Your task to perform on an android device: change the upload size in google photos Image 0: 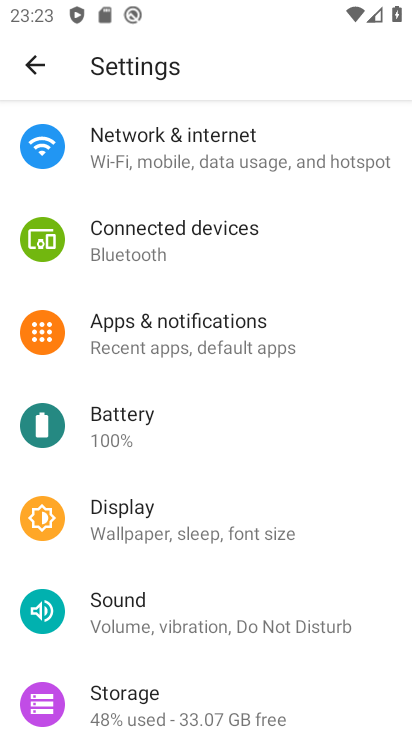
Step 0: press home button
Your task to perform on an android device: change the upload size in google photos Image 1: 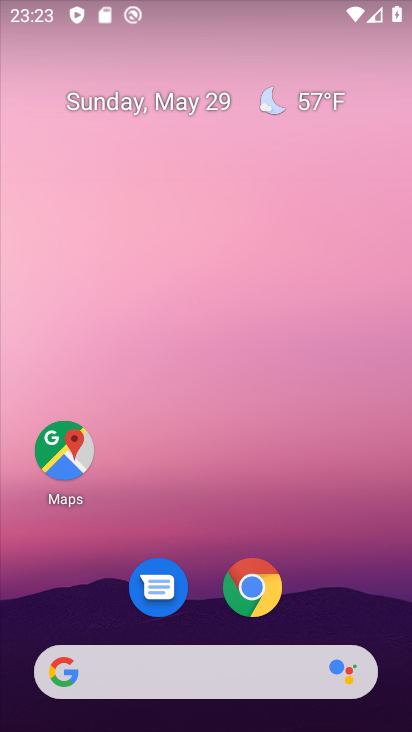
Step 1: drag from (374, 587) to (255, 89)
Your task to perform on an android device: change the upload size in google photos Image 2: 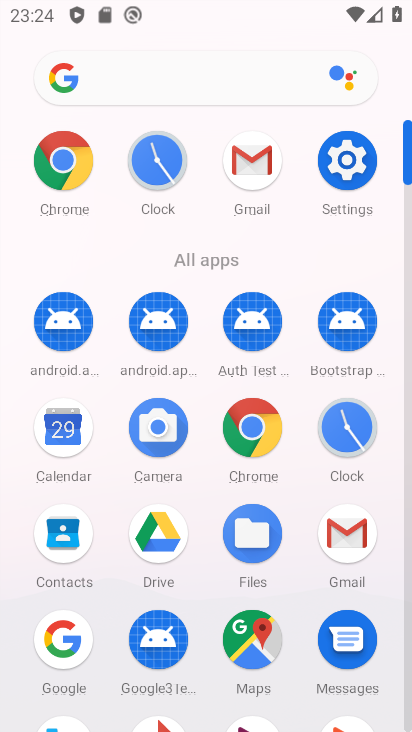
Step 2: click (408, 681)
Your task to perform on an android device: change the upload size in google photos Image 3: 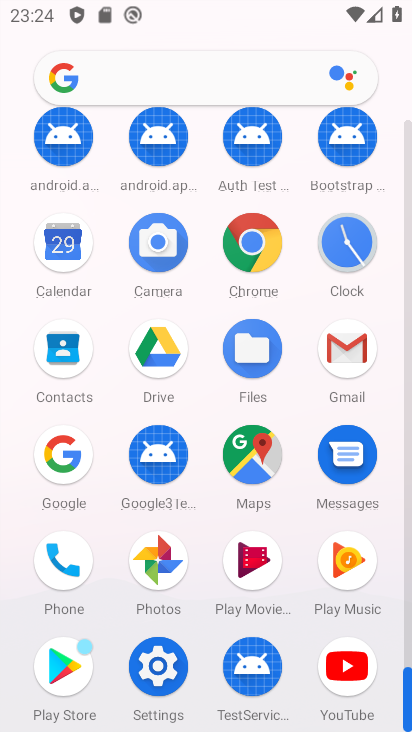
Step 3: click (179, 554)
Your task to perform on an android device: change the upload size in google photos Image 4: 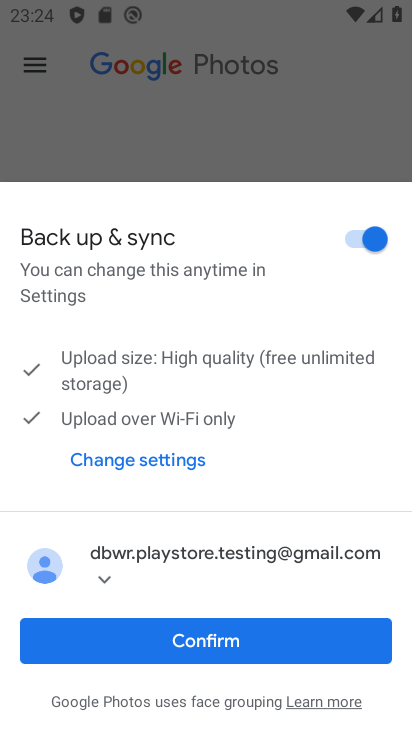
Step 4: click (227, 634)
Your task to perform on an android device: change the upload size in google photos Image 5: 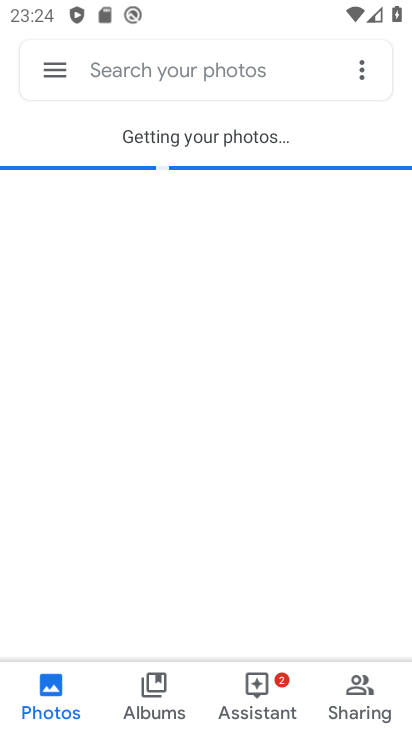
Step 5: click (54, 74)
Your task to perform on an android device: change the upload size in google photos Image 6: 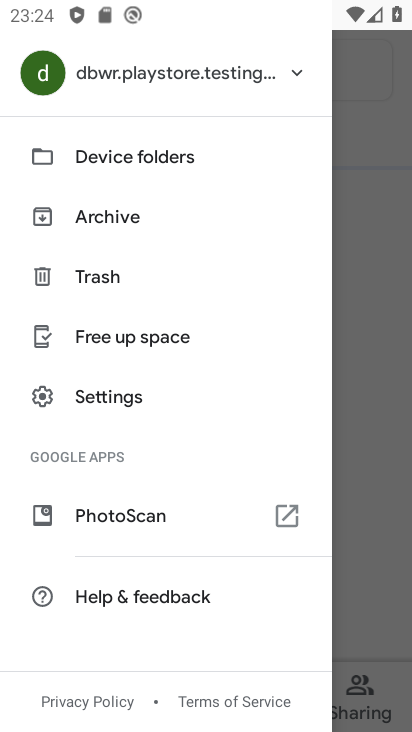
Step 6: click (138, 400)
Your task to perform on an android device: change the upload size in google photos Image 7: 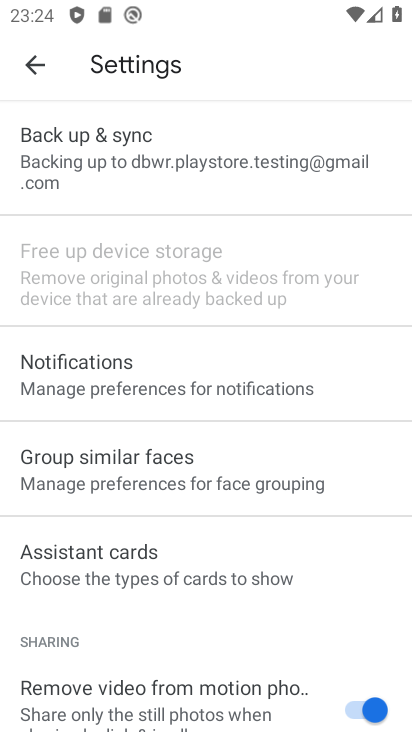
Step 7: click (181, 144)
Your task to perform on an android device: change the upload size in google photos Image 8: 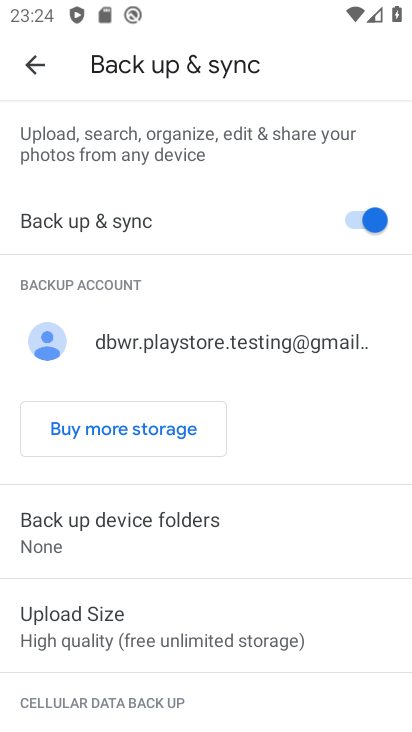
Step 8: drag from (201, 544) to (188, 205)
Your task to perform on an android device: change the upload size in google photos Image 9: 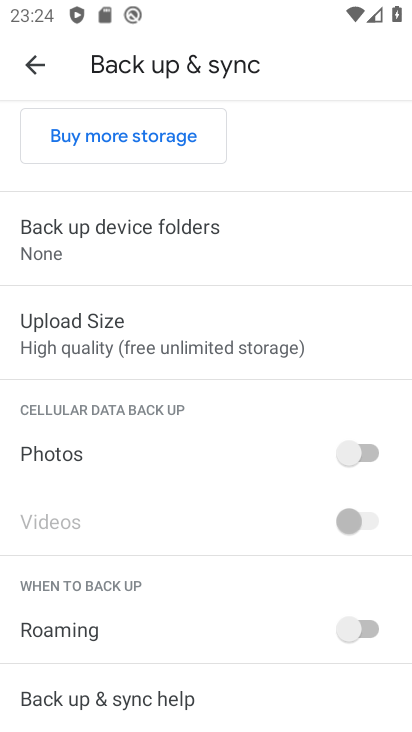
Step 9: click (193, 347)
Your task to perform on an android device: change the upload size in google photos Image 10: 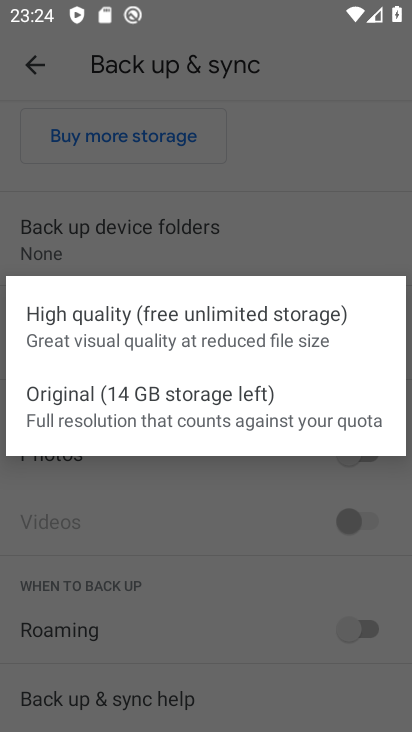
Step 10: drag from (193, 347) to (193, 397)
Your task to perform on an android device: change the upload size in google photos Image 11: 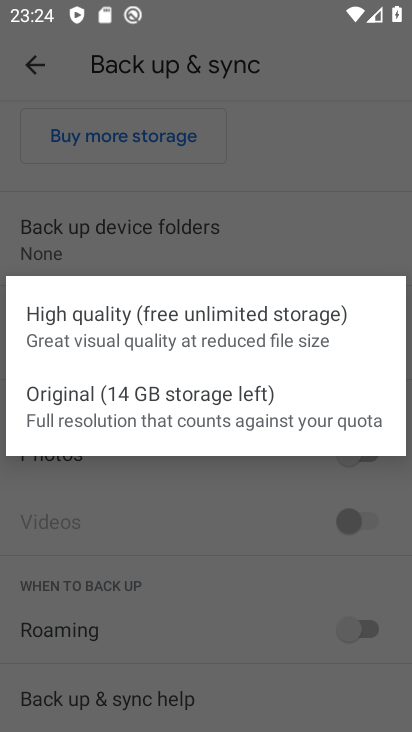
Step 11: click (193, 397)
Your task to perform on an android device: change the upload size in google photos Image 12: 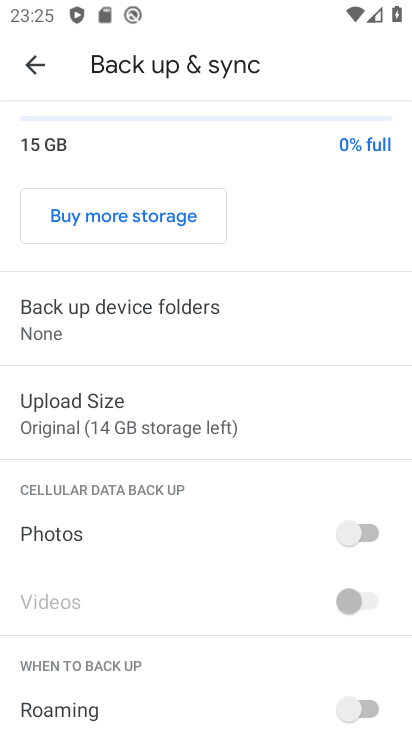
Step 12: task complete